Your task to perform on an android device: Open Maps and search for coffee Image 0: 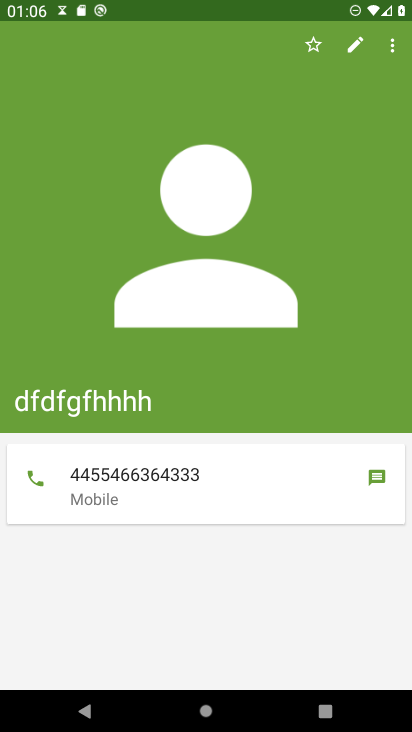
Step 0: press home button
Your task to perform on an android device: Open Maps and search for coffee Image 1: 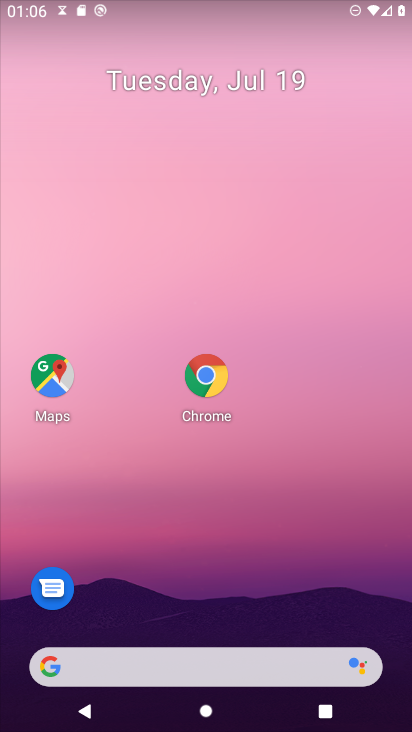
Step 1: click (51, 378)
Your task to perform on an android device: Open Maps and search for coffee Image 2: 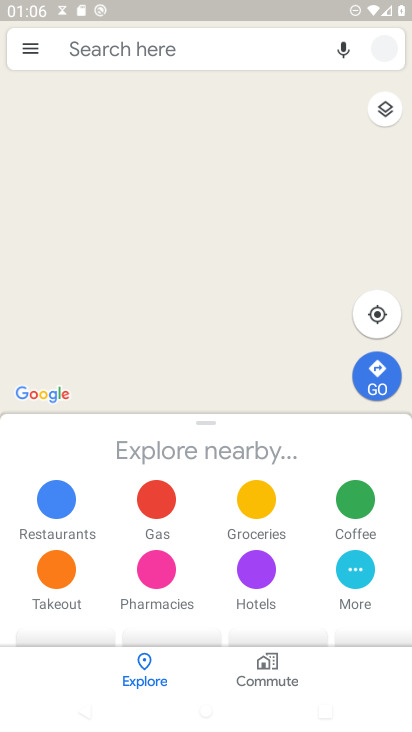
Step 2: click (163, 55)
Your task to perform on an android device: Open Maps and search for coffee Image 3: 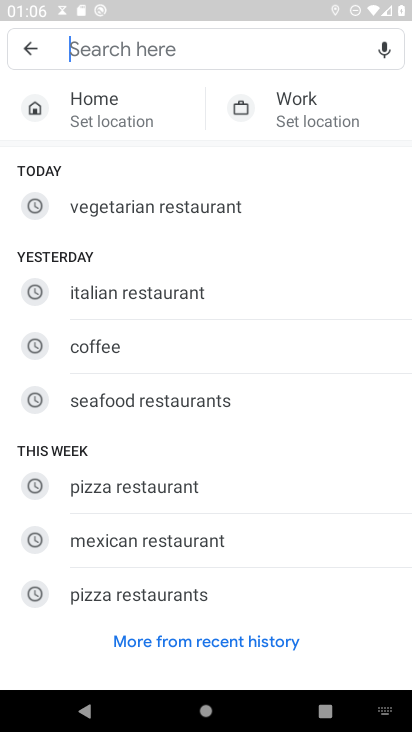
Step 3: click (100, 345)
Your task to perform on an android device: Open Maps and search for coffee Image 4: 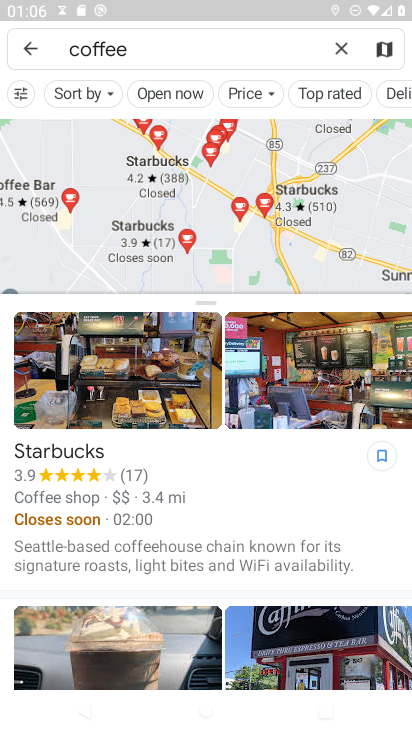
Step 4: task complete